Your task to perform on an android device: Do I have any events today? Image 0: 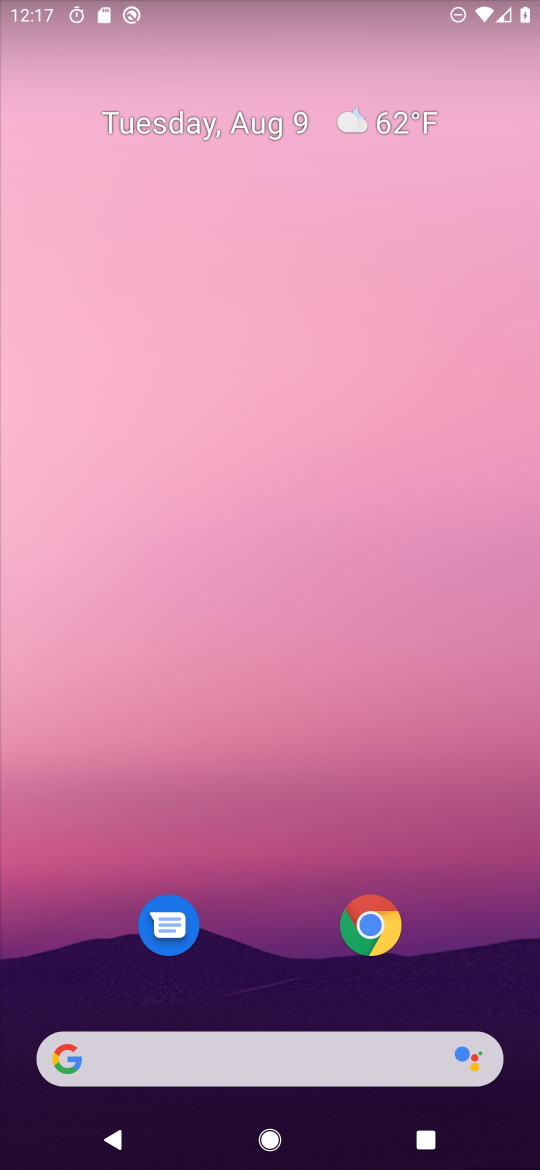
Step 0: drag from (277, 919) to (462, 225)
Your task to perform on an android device: Do I have any events today? Image 1: 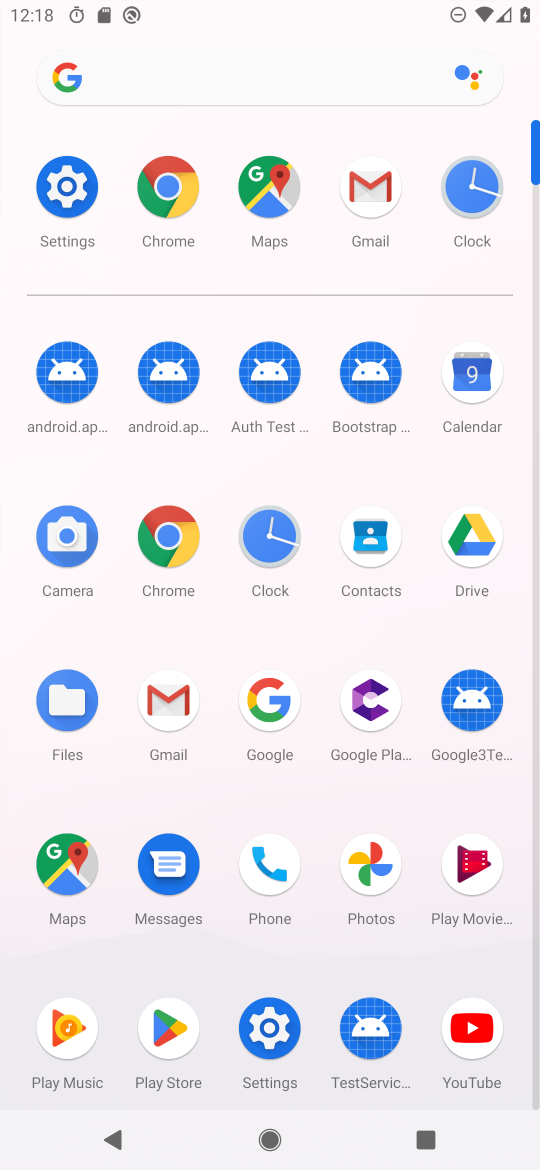
Step 1: click (467, 368)
Your task to perform on an android device: Do I have any events today? Image 2: 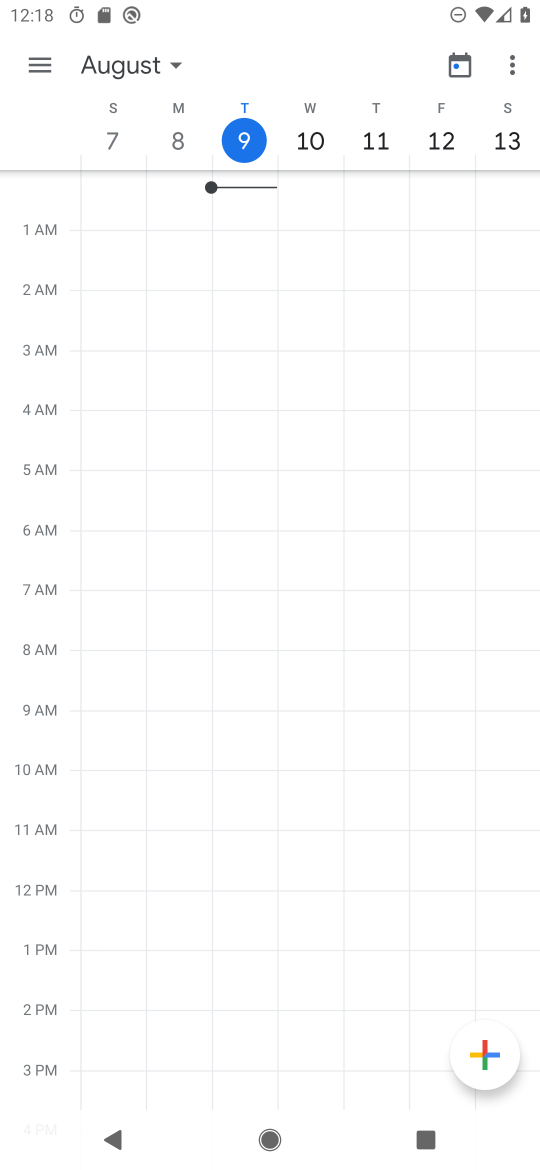
Step 2: task complete